Your task to perform on an android device: Go to internet settings Image 0: 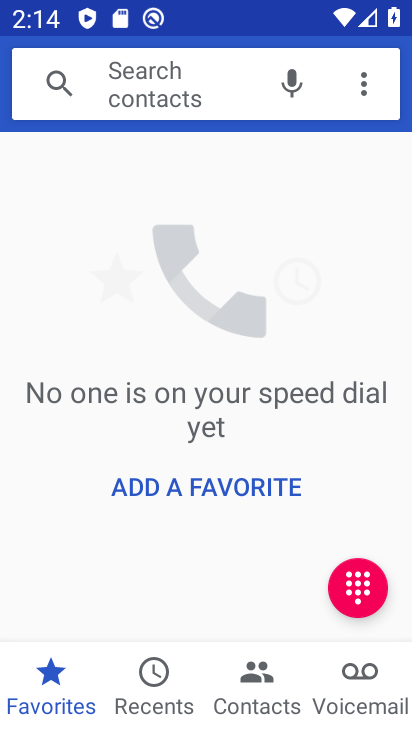
Step 0: press home button
Your task to perform on an android device: Go to internet settings Image 1: 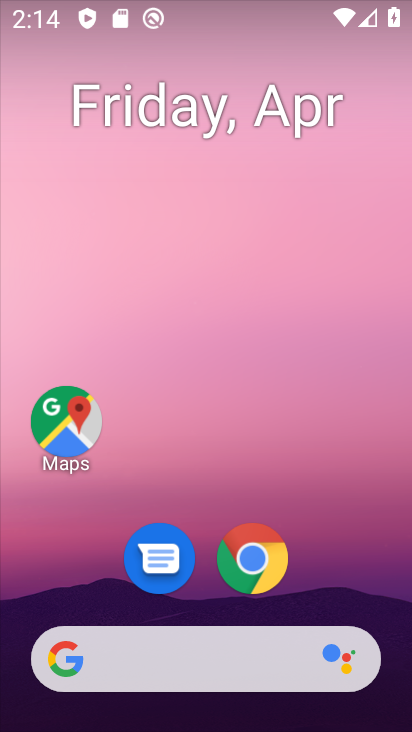
Step 1: drag from (304, 567) to (146, 12)
Your task to perform on an android device: Go to internet settings Image 2: 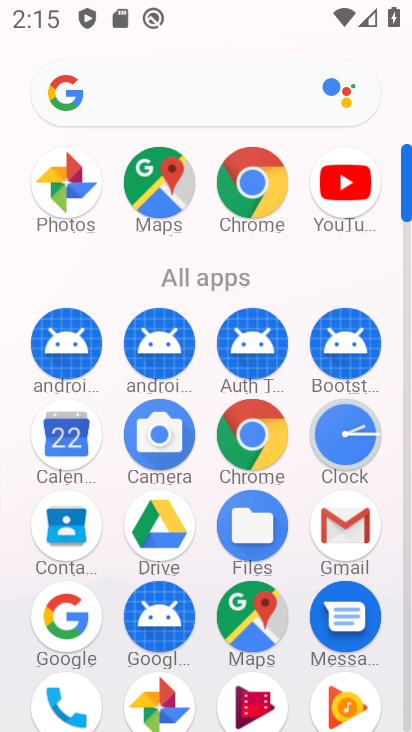
Step 2: click (408, 486)
Your task to perform on an android device: Go to internet settings Image 3: 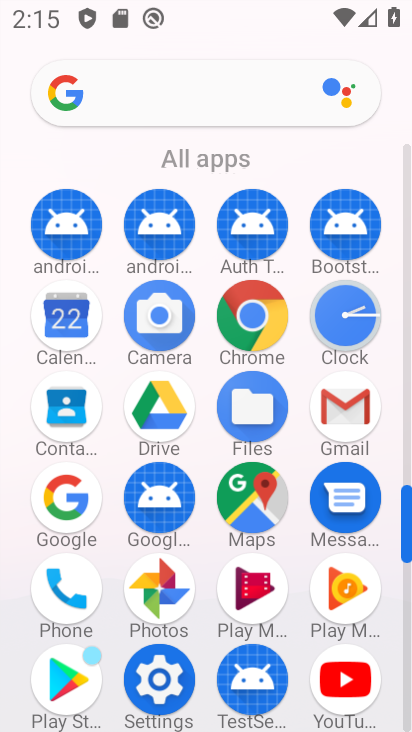
Step 3: click (167, 670)
Your task to perform on an android device: Go to internet settings Image 4: 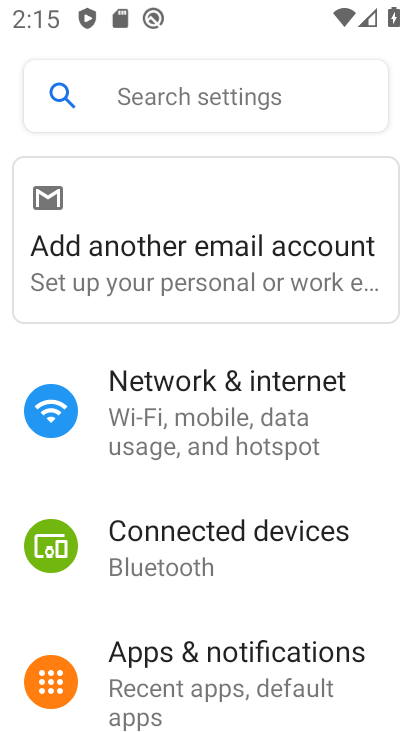
Step 4: click (237, 402)
Your task to perform on an android device: Go to internet settings Image 5: 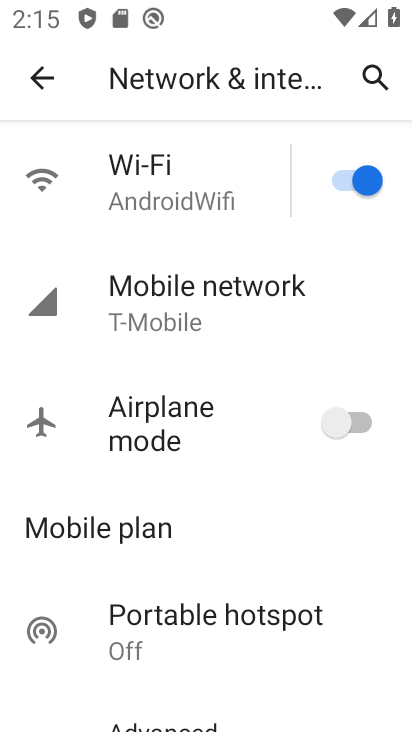
Step 5: click (242, 328)
Your task to perform on an android device: Go to internet settings Image 6: 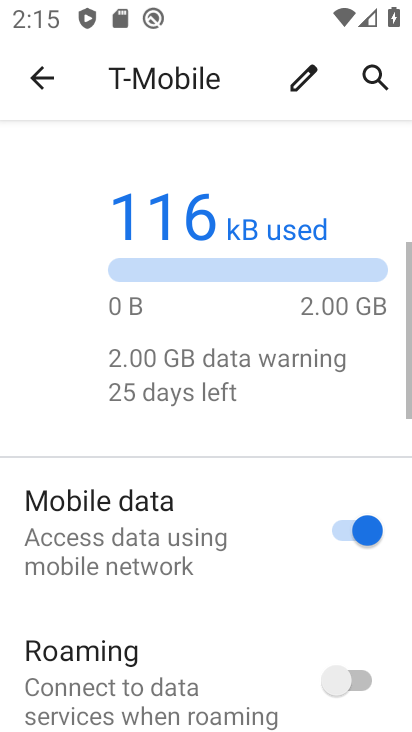
Step 6: task complete